Your task to perform on an android device: Open Reddit.com Image 0: 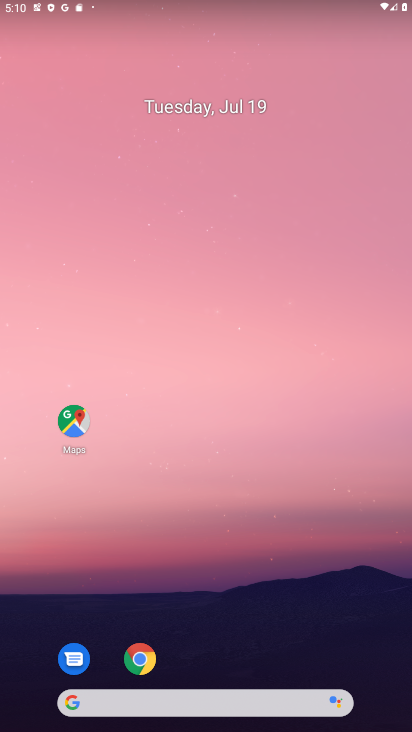
Step 0: drag from (214, 504) to (203, 3)
Your task to perform on an android device: Open Reddit.com Image 1: 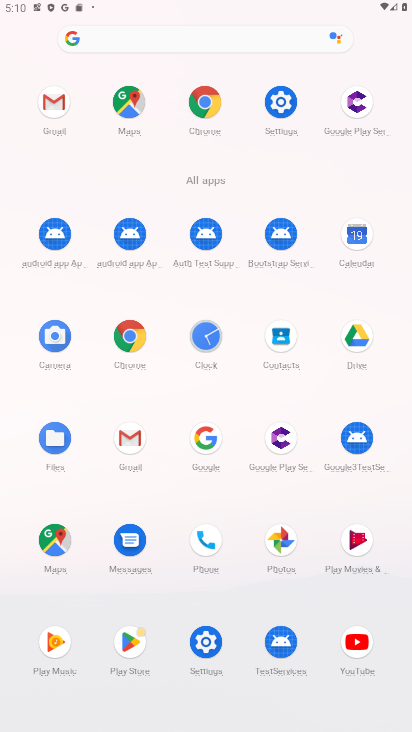
Step 1: click (203, 99)
Your task to perform on an android device: Open Reddit.com Image 2: 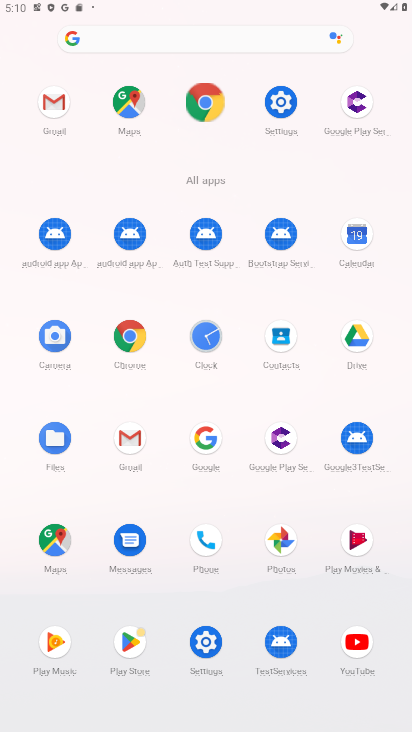
Step 2: click (203, 99)
Your task to perform on an android device: Open Reddit.com Image 3: 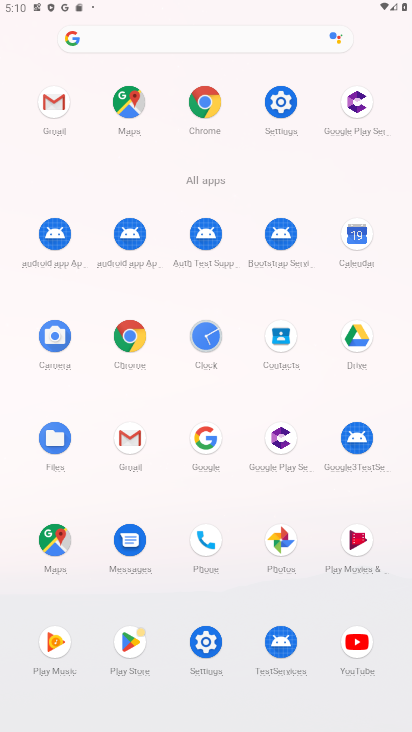
Step 3: click (203, 101)
Your task to perform on an android device: Open Reddit.com Image 4: 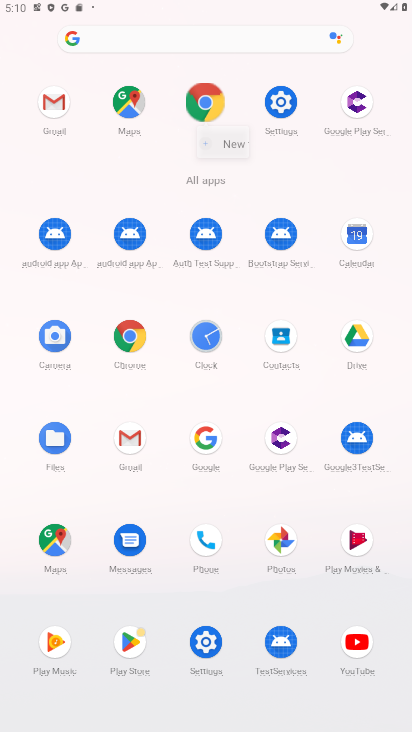
Step 4: click (209, 99)
Your task to perform on an android device: Open Reddit.com Image 5: 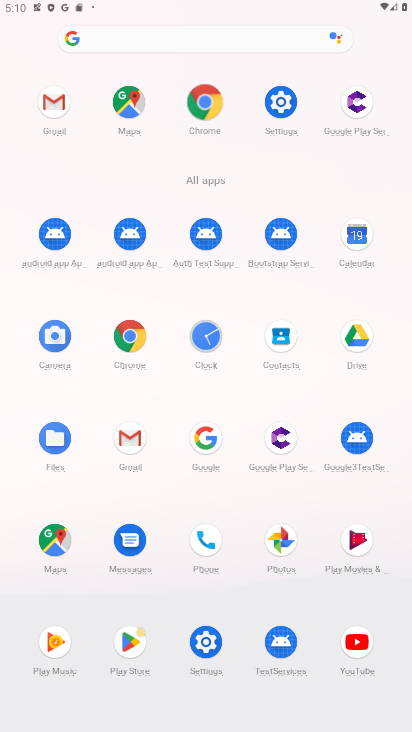
Step 5: click (214, 96)
Your task to perform on an android device: Open Reddit.com Image 6: 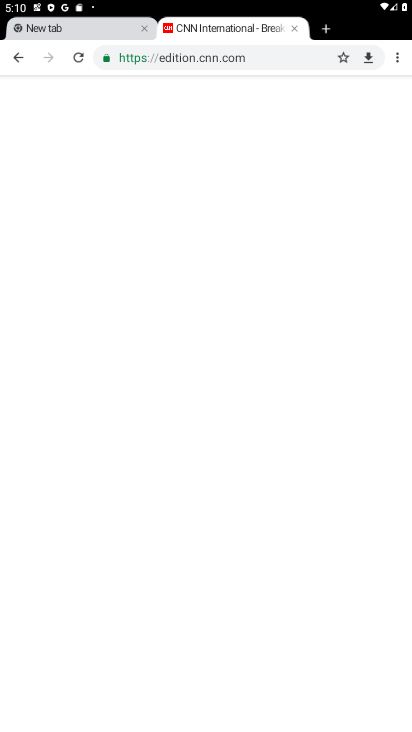
Step 6: press back button
Your task to perform on an android device: Open Reddit.com Image 7: 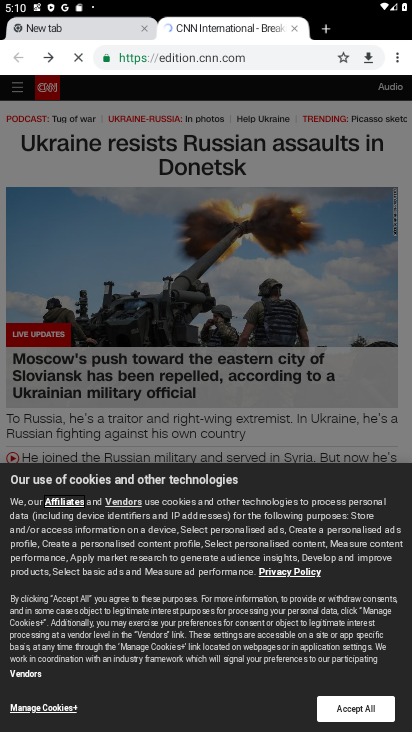
Step 7: press back button
Your task to perform on an android device: Open Reddit.com Image 8: 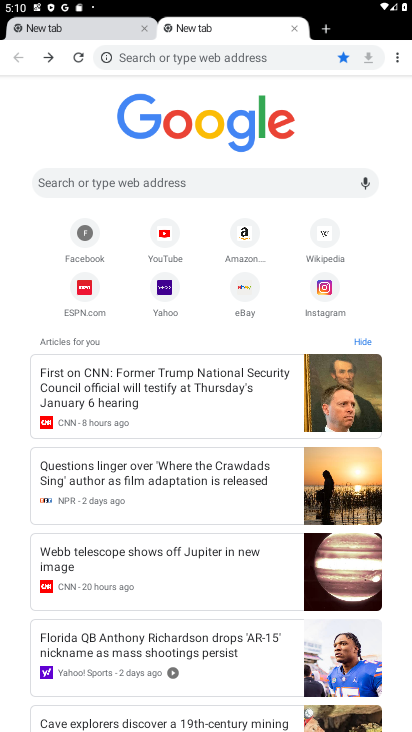
Step 8: click (71, 182)
Your task to perform on an android device: Open Reddit.com Image 9: 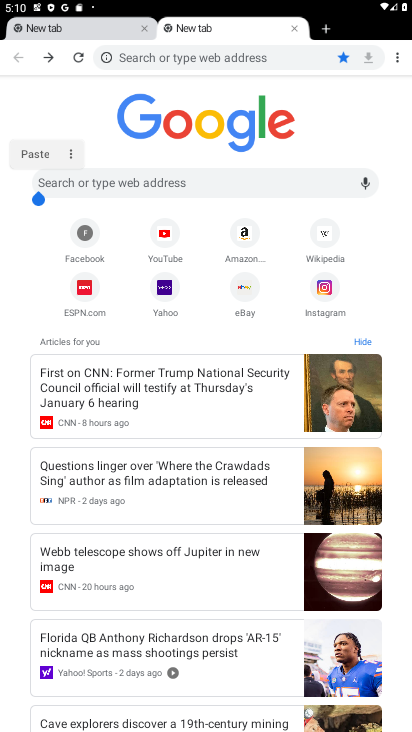
Step 9: click (72, 182)
Your task to perform on an android device: Open Reddit.com Image 10: 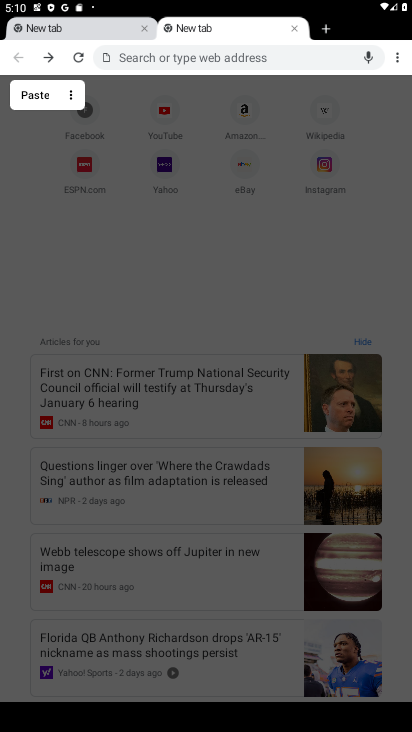
Step 10: type "reddit.com"
Your task to perform on an android device: Open Reddit.com Image 11: 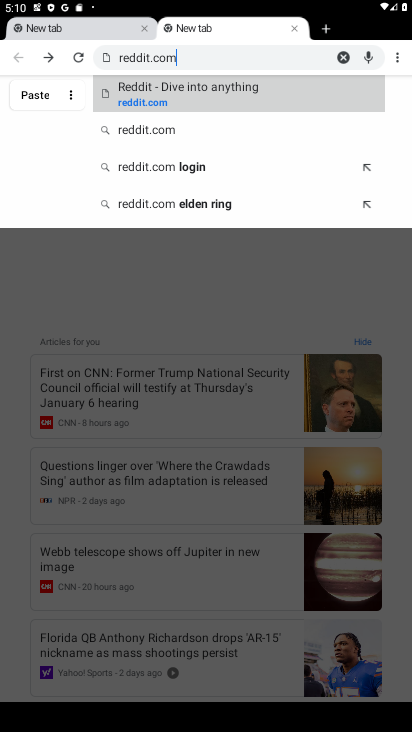
Step 11: click (136, 98)
Your task to perform on an android device: Open Reddit.com Image 12: 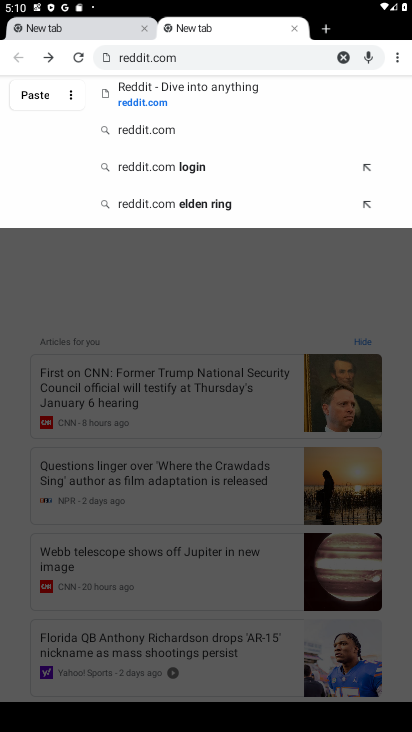
Step 12: click (136, 98)
Your task to perform on an android device: Open Reddit.com Image 13: 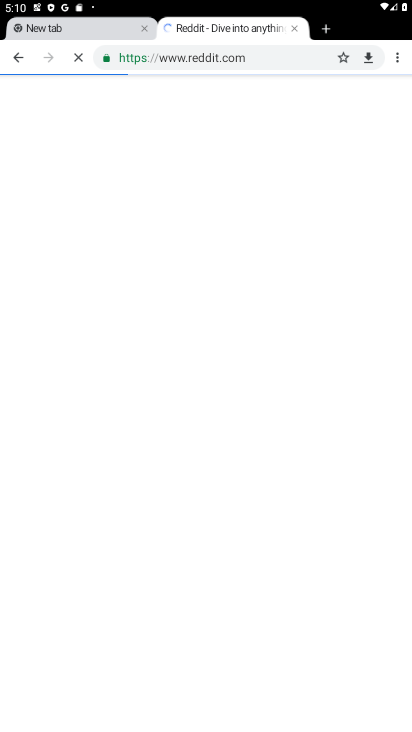
Step 13: task complete